Your task to perform on an android device: toggle translation in the chrome app Image 0: 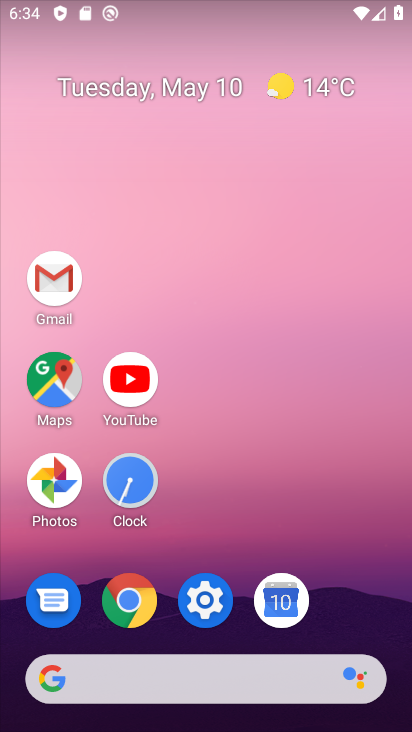
Step 0: click (130, 603)
Your task to perform on an android device: toggle translation in the chrome app Image 1: 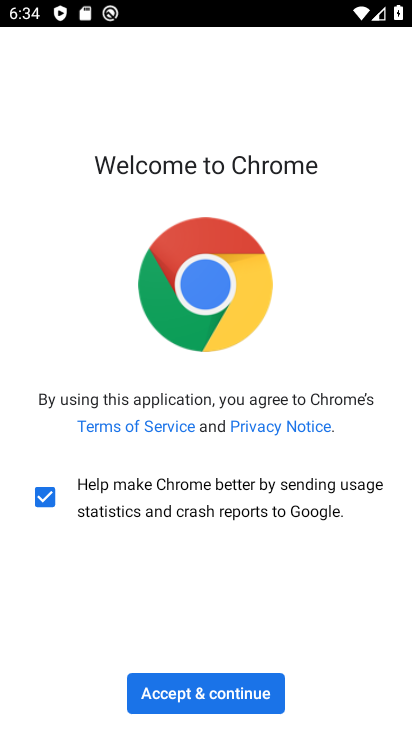
Step 1: click (223, 700)
Your task to perform on an android device: toggle translation in the chrome app Image 2: 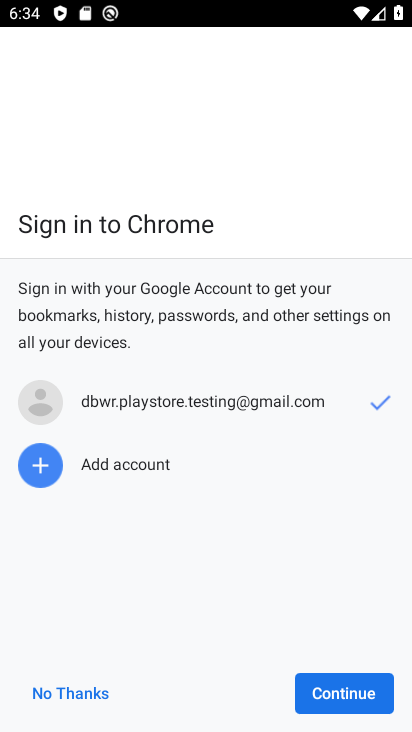
Step 2: click (346, 692)
Your task to perform on an android device: toggle translation in the chrome app Image 3: 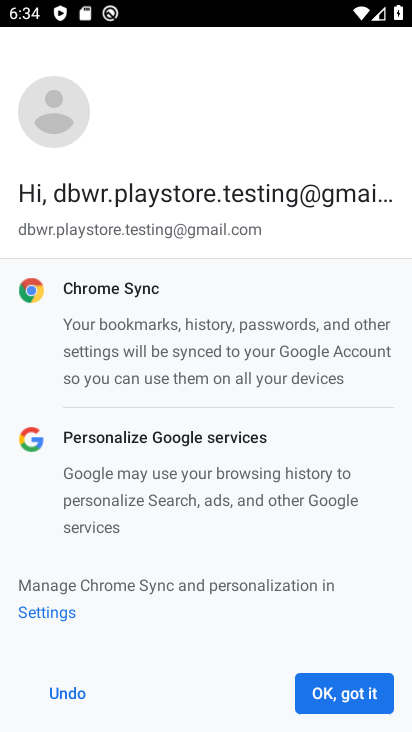
Step 3: click (346, 692)
Your task to perform on an android device: toggle translation in the chrome app Image 4: 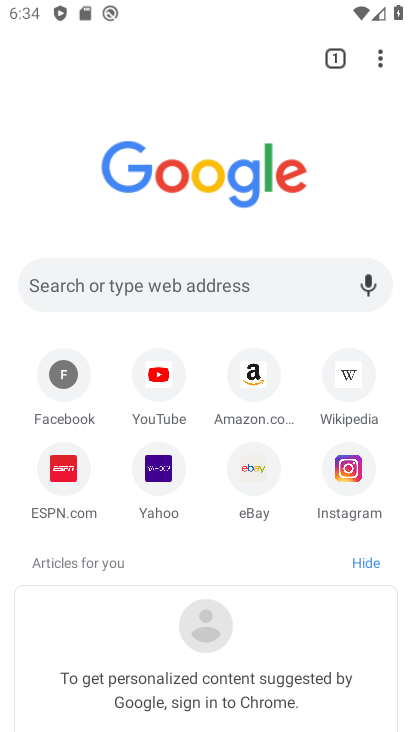
Step 4: click (382, 61)
Your task to perform on an android device: toggle translation in the chrome app Image 5: 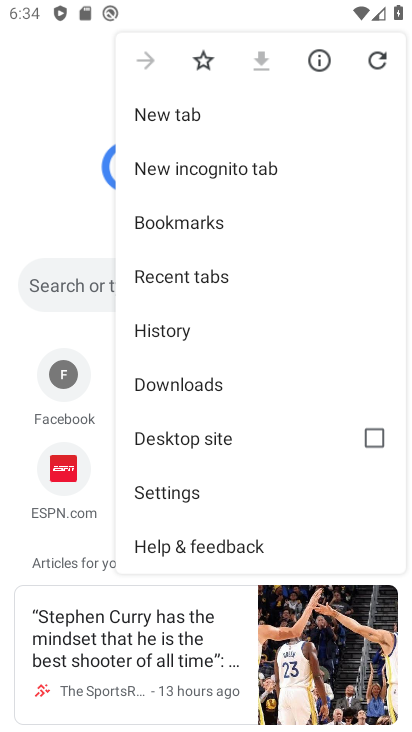
Step 5: click (182, 492)
Your task to perform on an android device: toggle translation in the chrome app Image 6: 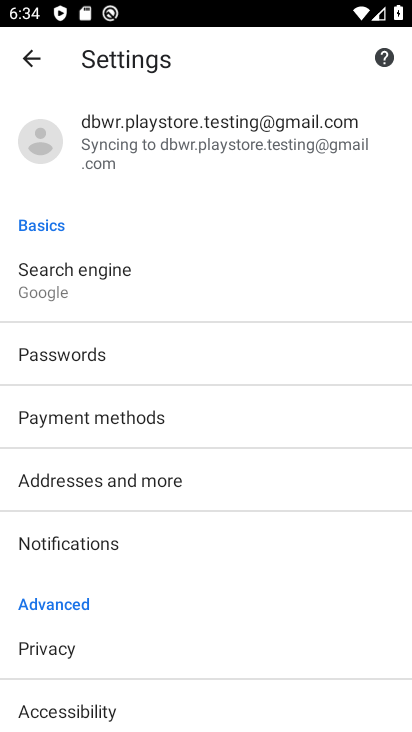
Step 6: drag from (175, 583) to (130, 249)
Your task to perform on an android device: toggle translation in the chrome app Image 7: 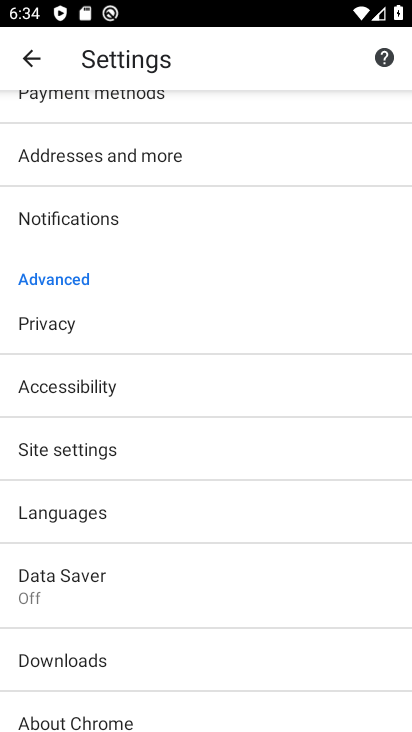
Step 7: click (76, 511)
Your task to perform on an android device: toggle translation in the chrome app Image 8: 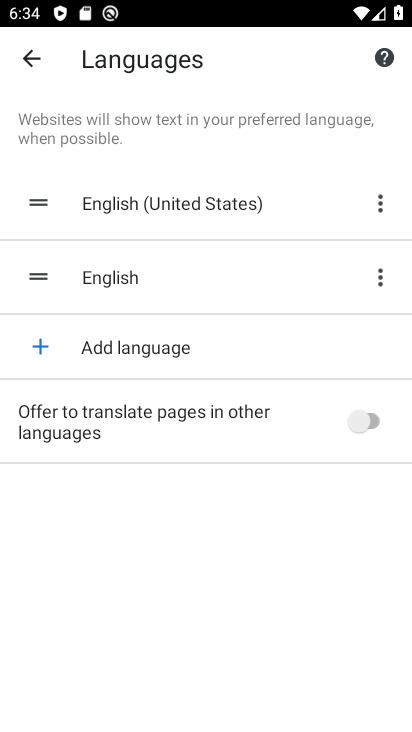
Step 8: click (358, 419)
Your task to perform on an android device: toggle translation in the chrome app Image 9: 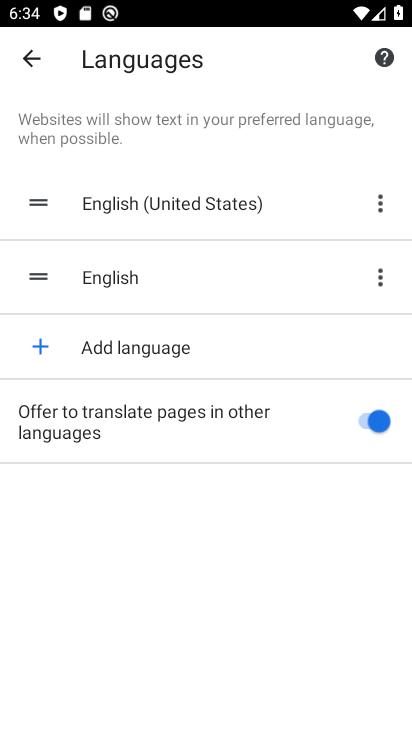
Step 9: task complete